Your task to perform on an android device: Open Google Chrome Image 0: 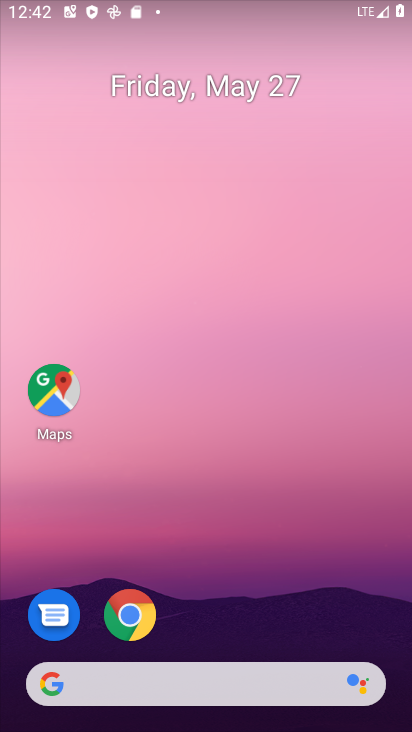
Step 0: drag from (270, 680) to (410, 71)
Your task to perform on an android device: Open Google Chrome Image 1: 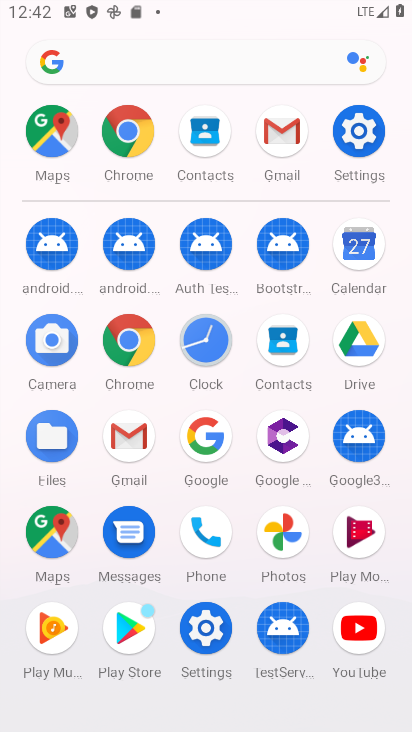
Step 1: click (116, 340)
Your task to perform on an android device: Open Google Chrome Image 2: 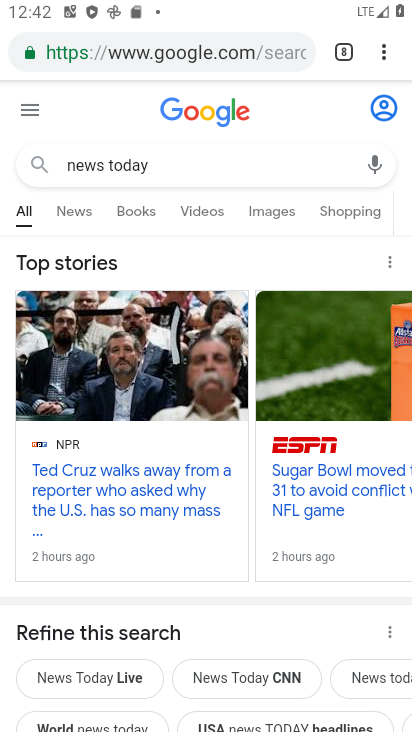
Step 2: task complete